Your task to perform on an android device: Show me popular games on the Play Store Image 0: 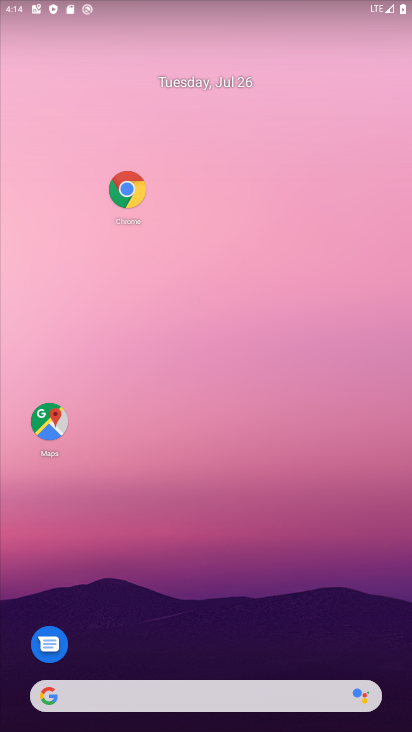
Step 0: drag from (212, 680) to (212, 144)
Your task to perform on an android device: Show me popular games on the Play Store Image 1: 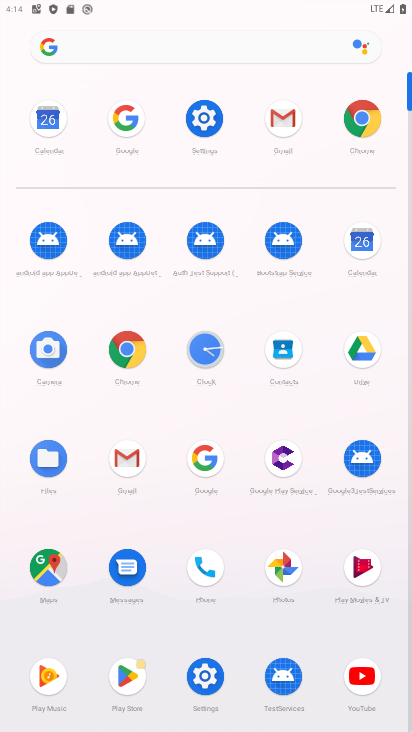
Step 1: click (124, 665)
Your task to perform on an android device: Show me popular games on the Play Store Image 2: 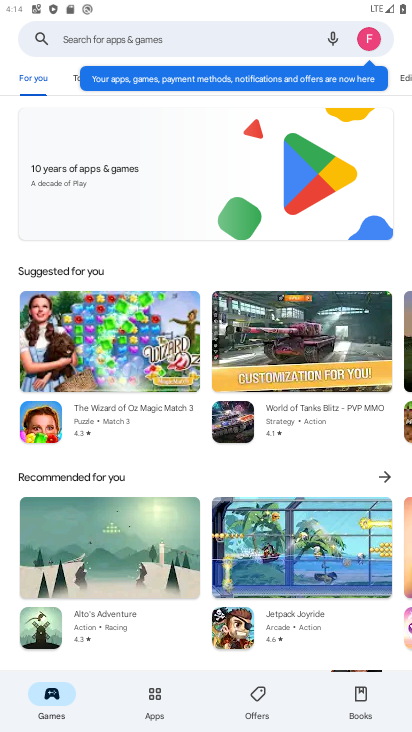
Step 2: type "popular games"
Your task to perform on an android device: Show me popular games on the Play Store Image 3: 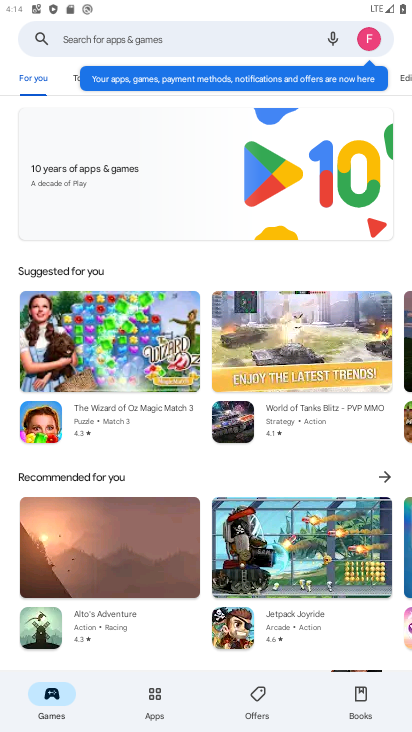
Step 3: click (121, 40)
Your task to perform on an android device: Show me popular games on the Play Store Image 4: 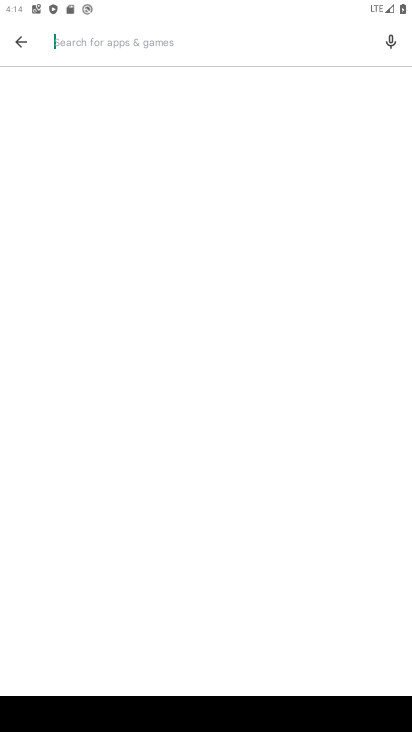
Step 4: type "popular games"
Your task to perform on an android device: Show me popular games on the Play Store Image 5: 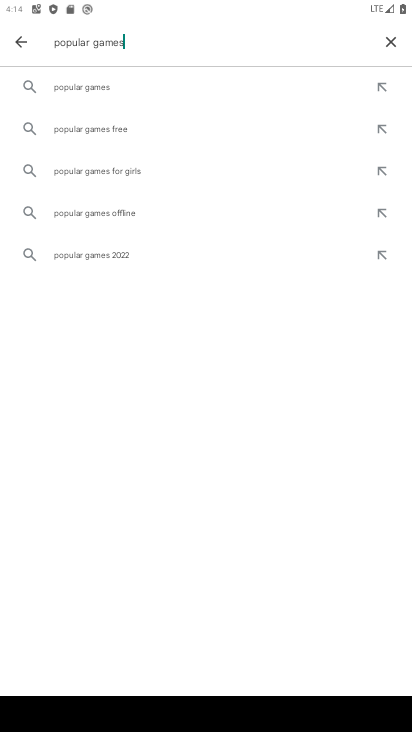
Step 5: click (90, 90)
Your task to perform on an android device: Show me popular games on the Play Store Image 6: 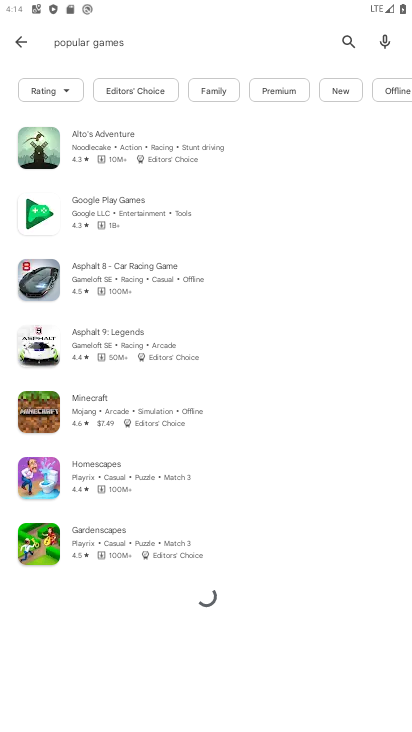
Step 6: task complete